Your task to perform on an android device: Go to Android settings Image 0: 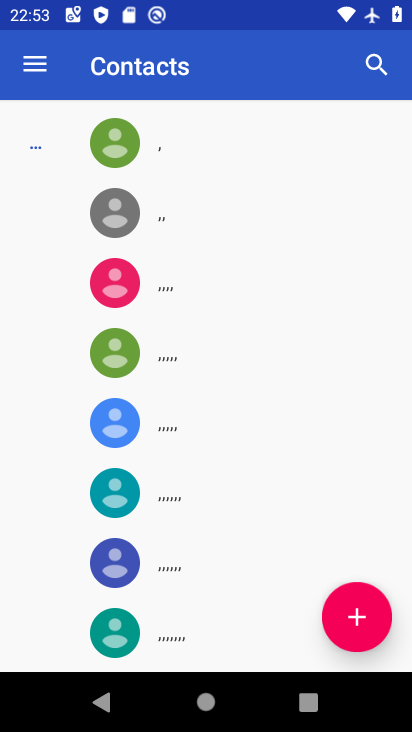
Step 0: press home button
Your task to perform on an android device: Go to Android settings Image 1: 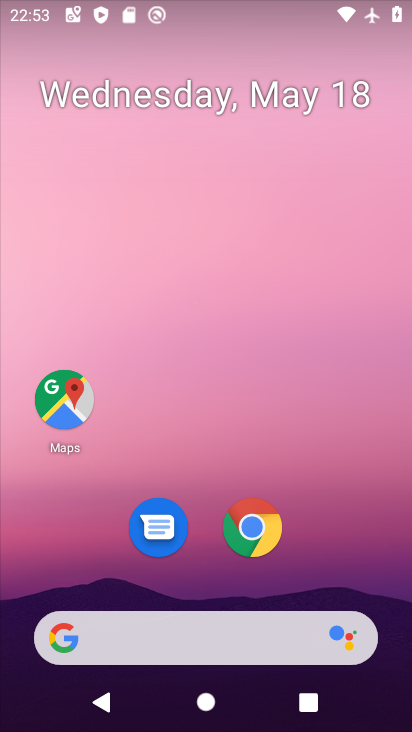
Step 1: drag from (333, 548) to (332, 53)
Your task to perform on an android device: Go to Android settings Image 2: 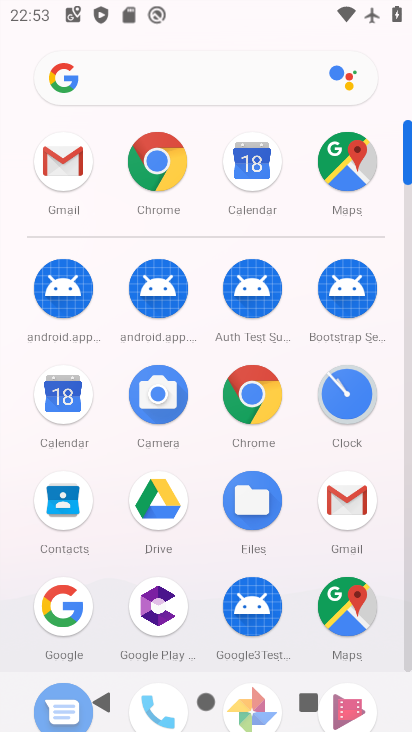
Step 2: click (409, 481)
Your task to perform on an android device: Go to Android settings Image 3: 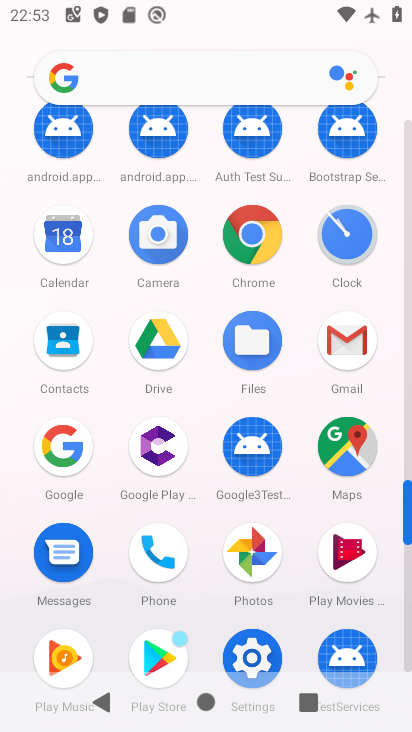
Step 3: click (248, 653)
Your task to perform on an android device: Go to Android settings Image 4: 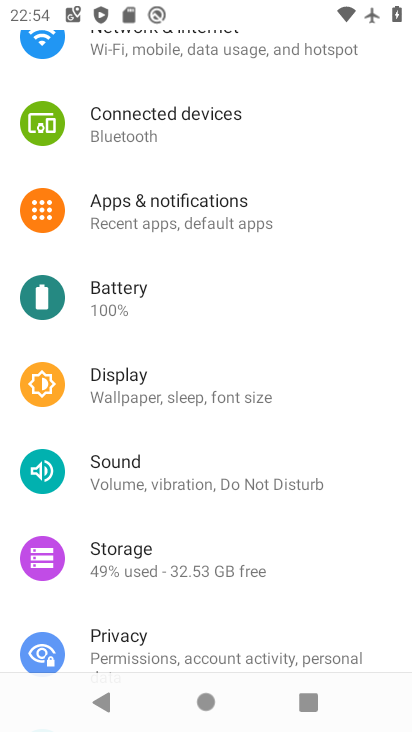
Step 4: task complete